Your task to perform on an android device: Open accessibility settings Image 0: 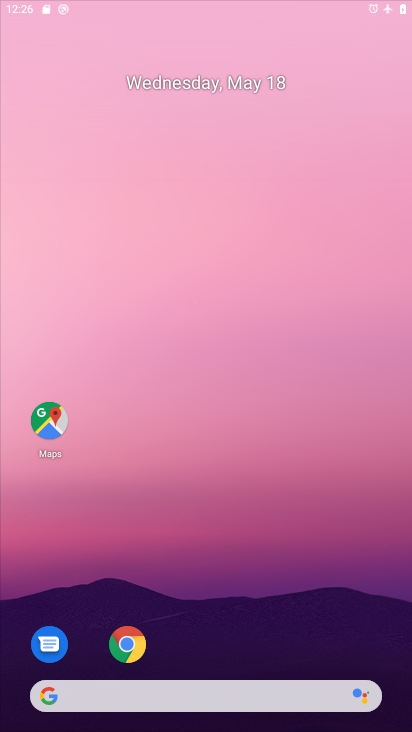
Step 0: press home button
Your task to perform on an android device: Open accessibility settings Image 1: 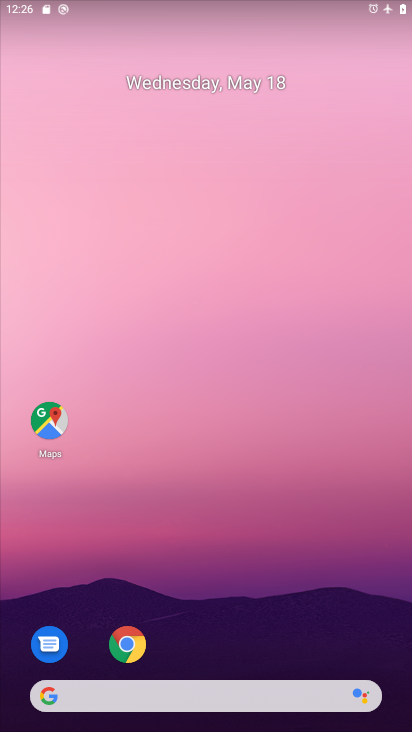
Step 1: press home button
Your task to perform on an android device: Open accessibility settings Image 2: 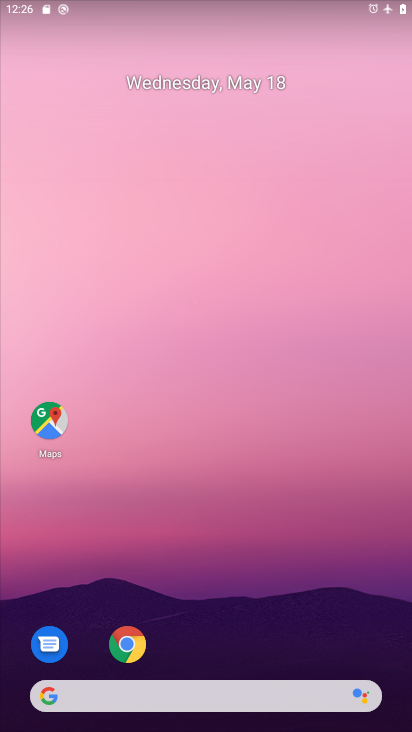
Step 2: drag from (203, 654) to (289, 160)
Your task to perform on an android device: Open accessibility settings Image 3: 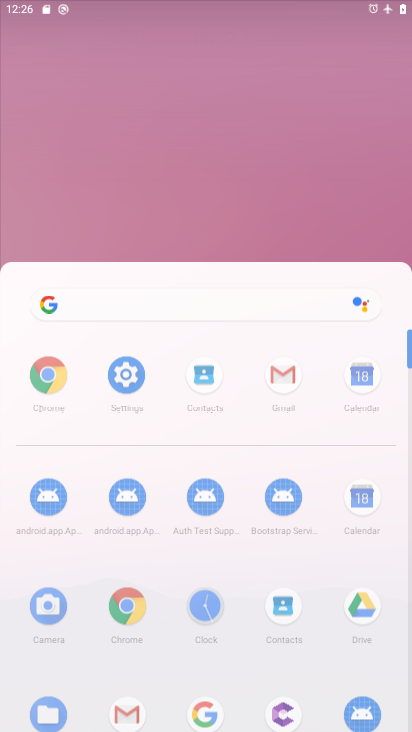
Step 3: click (307, 60)
Your task to perform on an android device: Open accessibility settings Image 4: 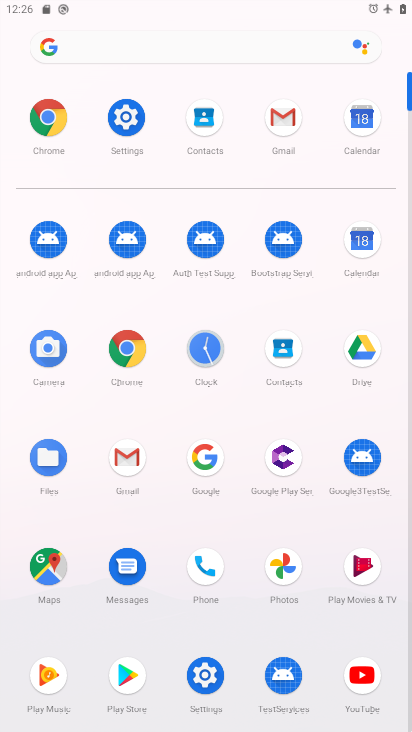
Step 4: click (131, 108)
Your task to perform on an android device: Open accessibility settings Image 5: 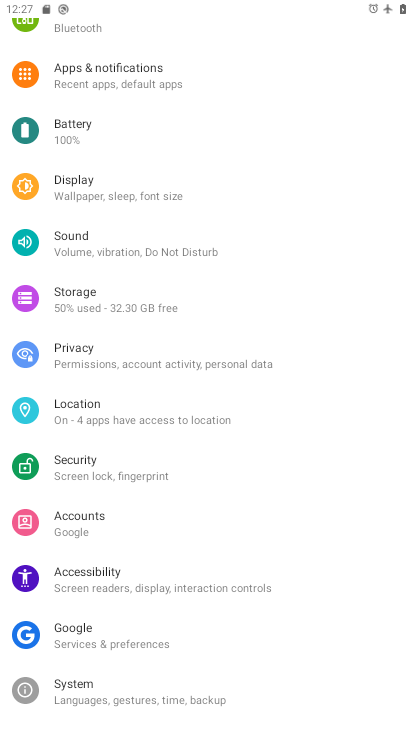
Step 5: click (129, 572)
Your task to perform on an android device: Open accessibility settings Image 6: 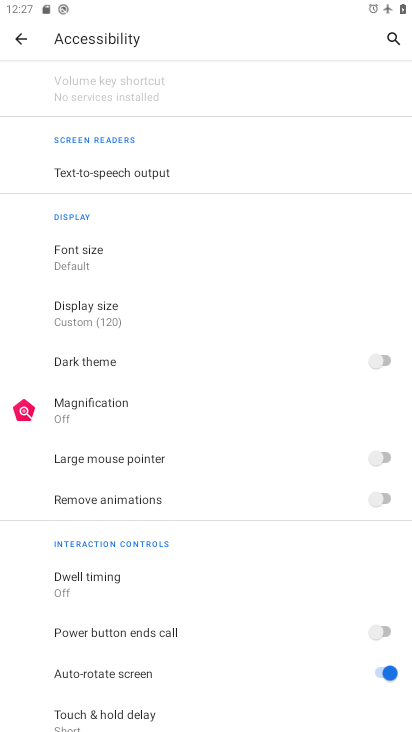
Step 6: task complete